Your task to perform on an android device: Go to location settings Image 0: 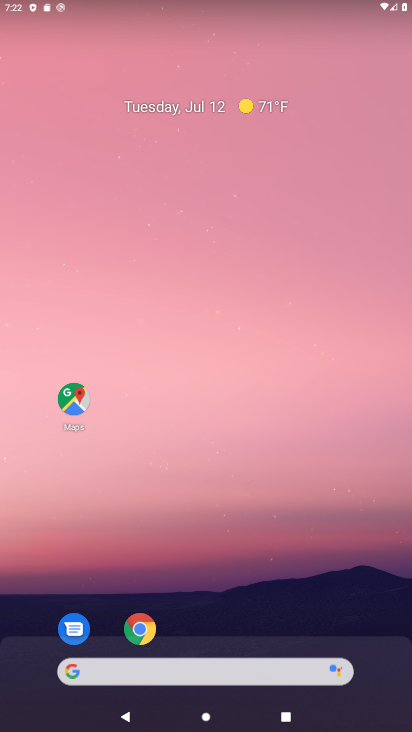
Step 0: drag from (406, 673) to (343, 43)
Your task to perform on an android device: Go to location settings Image 1: 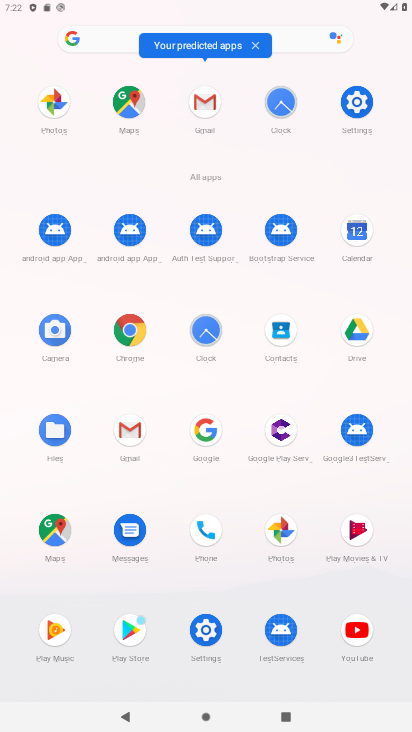
Step 1: click (356, 99)
Your task to perform on an android device: Go to location settings Image 2: 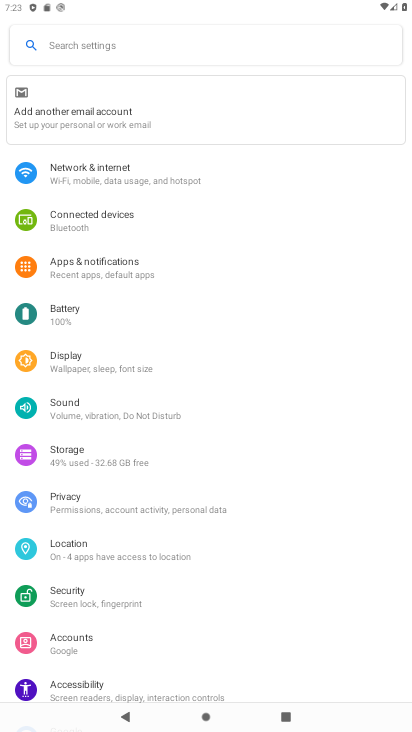
Step 2: drag from (192, 656) to (206, 330)
Your task to perform on an android device: Go to location settings Image 3: 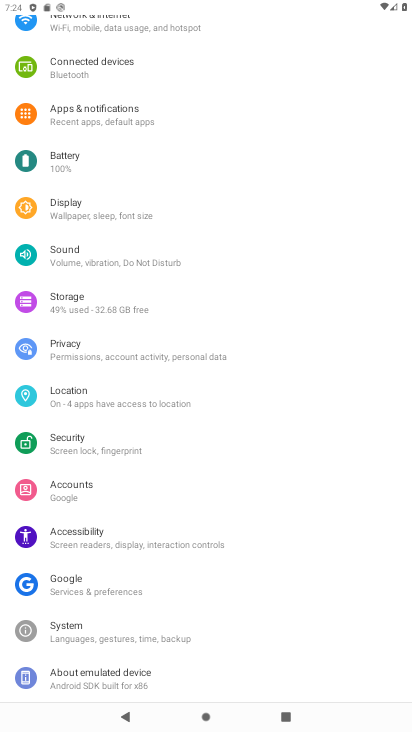
Step 3: click (68, 393)
Your task to perform on an android device: Go to location settings Image 4: 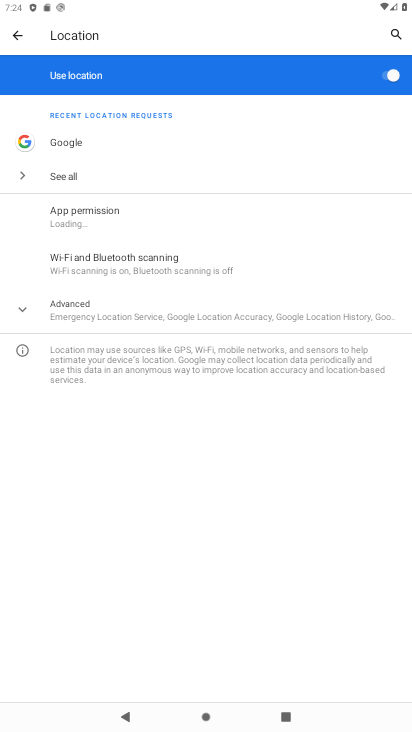
Step 4: click (21, 304)
Your task to perform on an android device: Go to location settings Image 5: 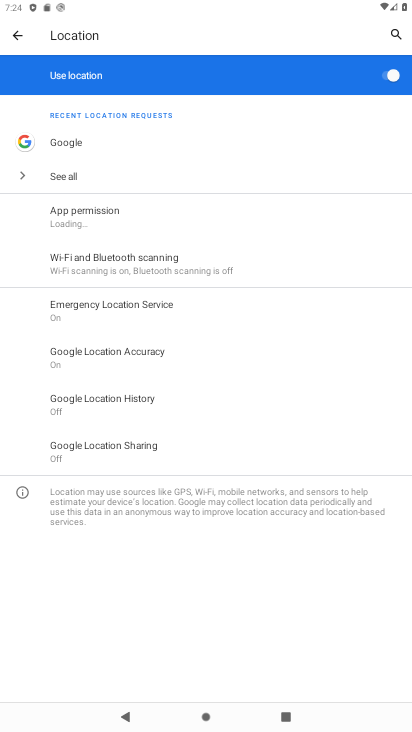
Step 5: task complete